Your task to perform on an android device: check android version Image 0: 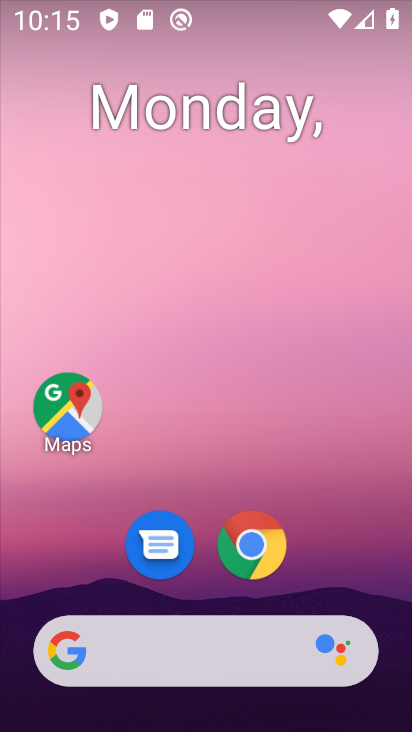
Step 0: drag from (356, 567) to (302, 169)
Your task to perform on an android device: check android version Image 1: 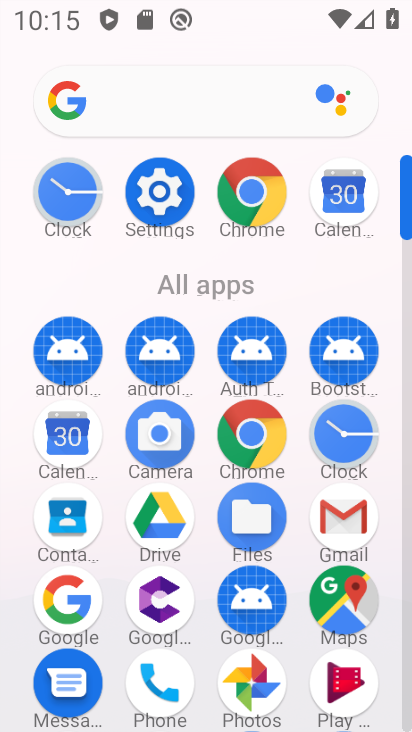
Step 1: drag from (229, 628) to (223, 296)
Your task to perform on an android device: check android version Image 2: 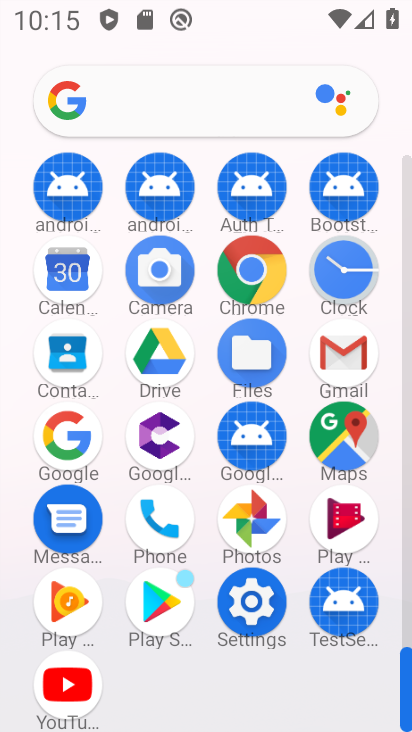
Step 2: click (250, 607)
Your task to perform on an android device: check android version Image 3: 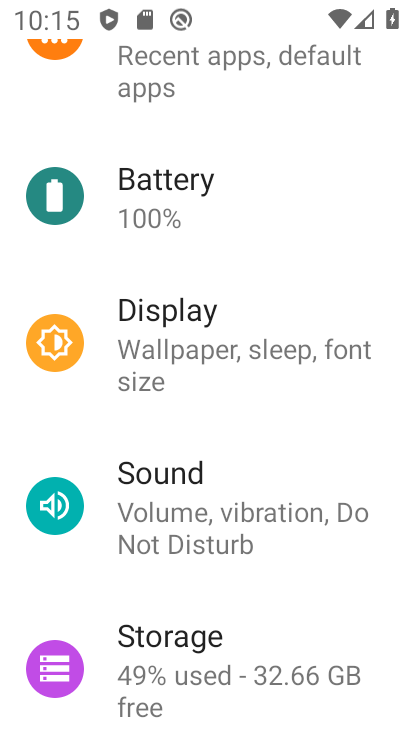
Step 3: drag from (281, 255) to (282, 592)
Your task to perform on an android device: check android version Image 4: 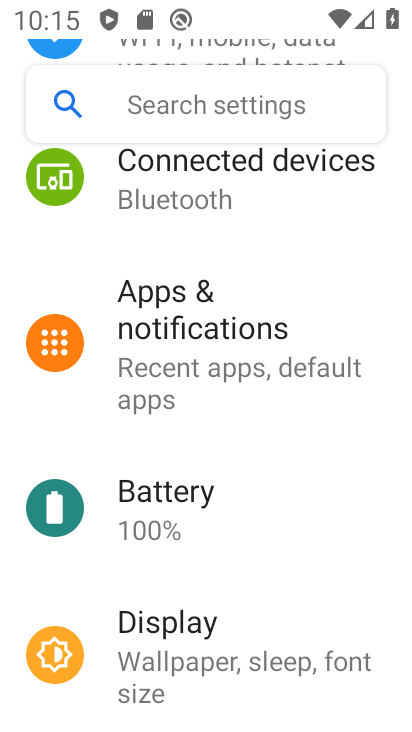
Step 4: drag from (336, 314) to (301, 675)
Your task to perform on an android device: check android version Image 5: 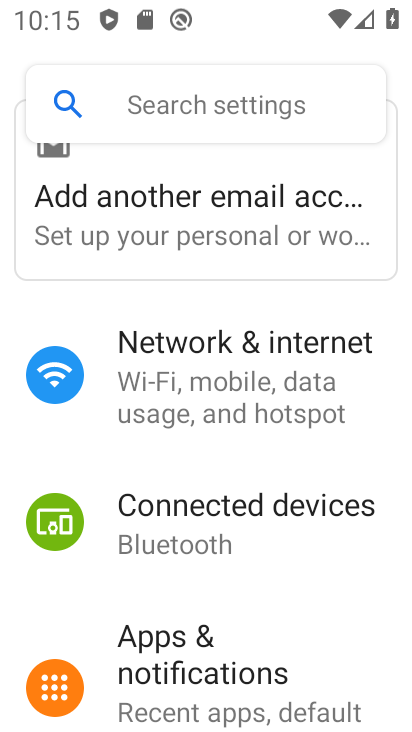
Step 5: drag from (293, 651) to (293, 166)
Your task to perform on an android device: check android version Image 6: 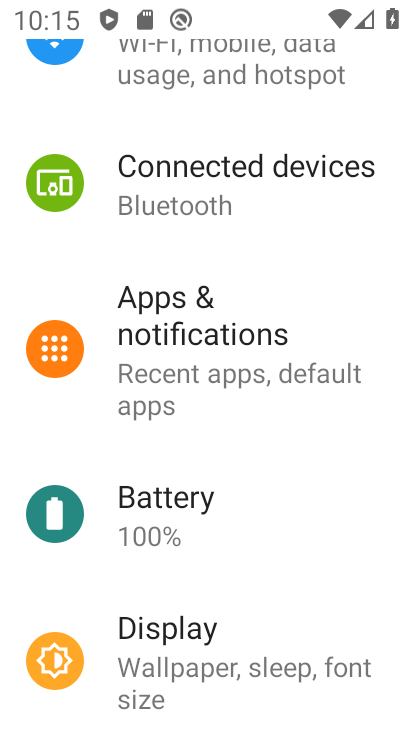
Step 6: drag from (346, 628) to (294, 234)
Your task to perform on an android device: check android version Image 7: 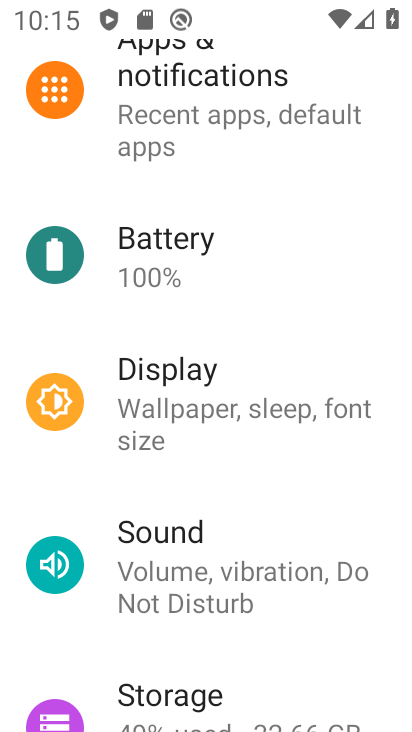
Step 7: drag from (298, 619) to (299, 288)
Your task to perform on an android device: check android version Image 8: 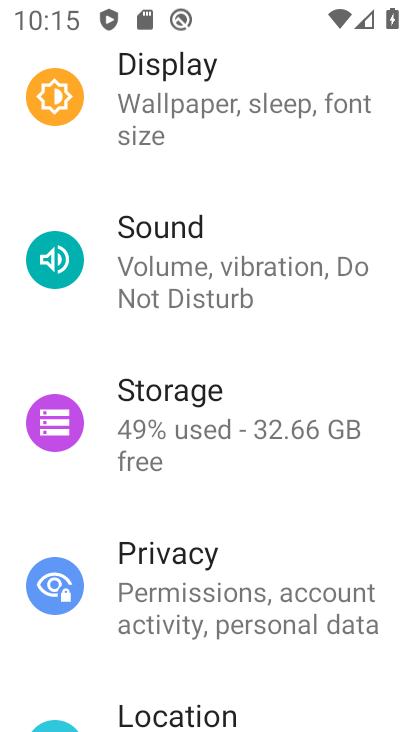
Step 8: drag from (313, 668) to (289, 266)
Your task to perform on an android device: check android version Image 9: 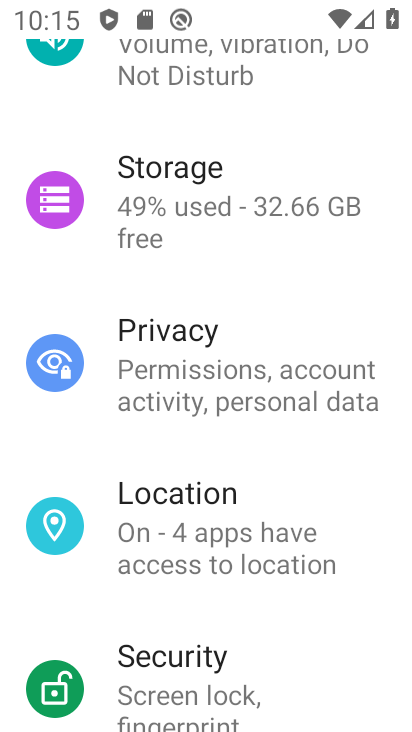
Step 9: drag from (263, 673) to (248, 229)
Your task to perform on an android device: check android version Image 10: 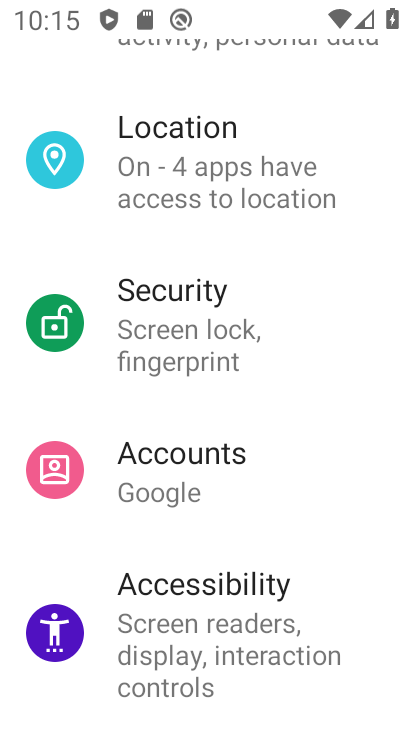
Step 10: drag from (286, 659) to (300, 278)
Your task to perform on an android device: check android version Image 11: 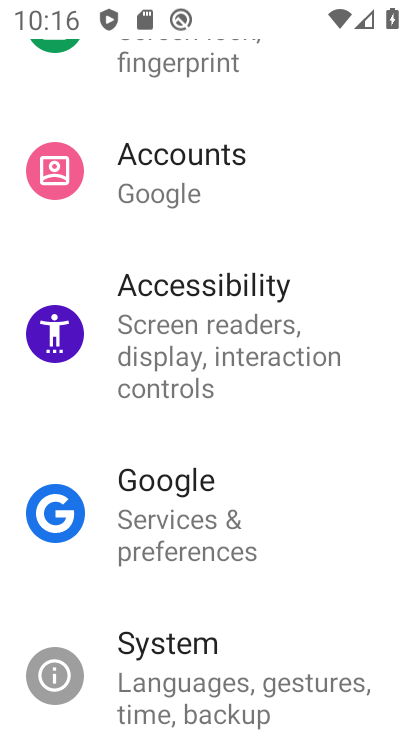
Step 11: drag from (337, 716) to (322, 249)
Your task to perform on an android device: check android version Image 12: 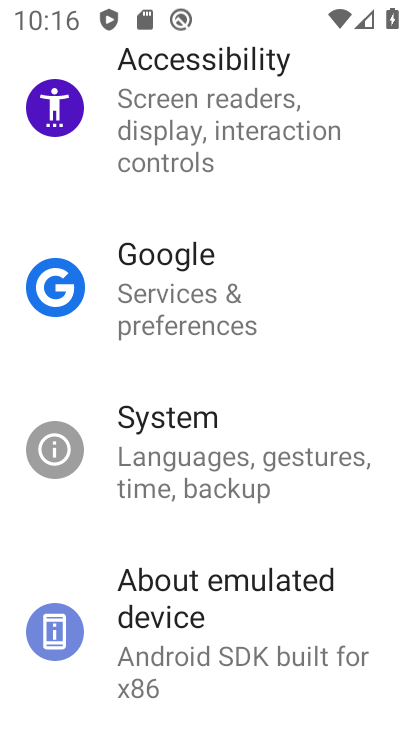
Step 12: click (274, 579)
Your task to perform on an android device: check android version Image 13: 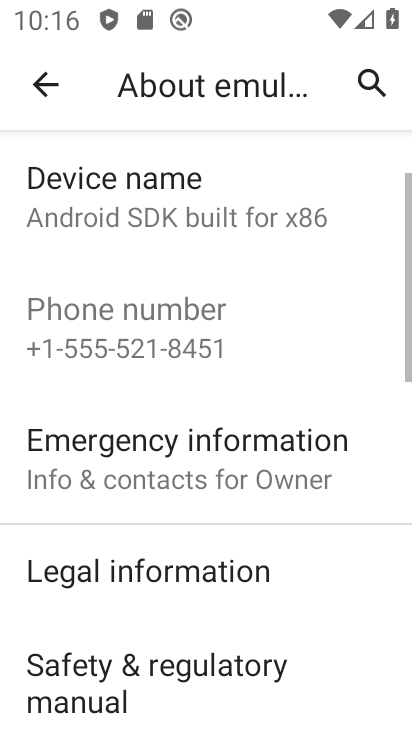
Step 13: drag from (217, 554) to (214, 231)
Your task to perform on an android device: check android version Image 14: 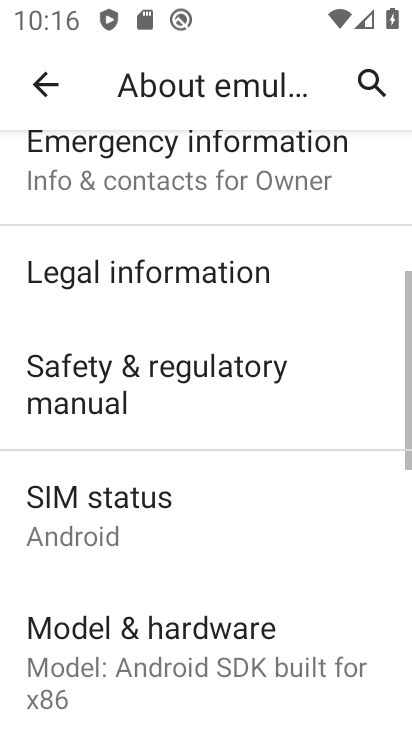
Step 14: drag from (199, 647) to (213, 301)
Your task to perform on an android device: check android version Image 15: 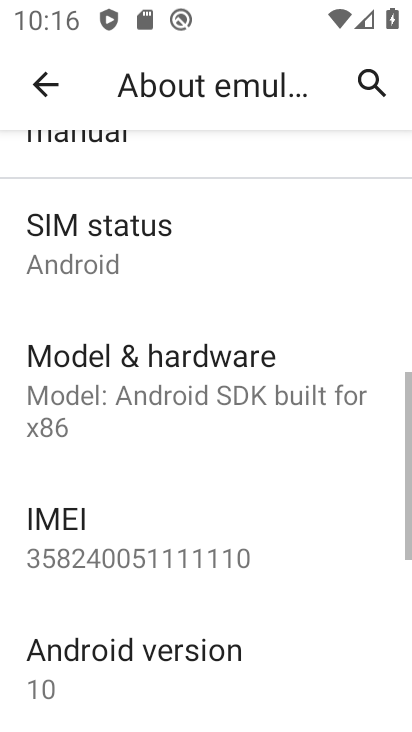
Step 15: click (192, 639)
Your task to perform on an android device: check android version Image 16: 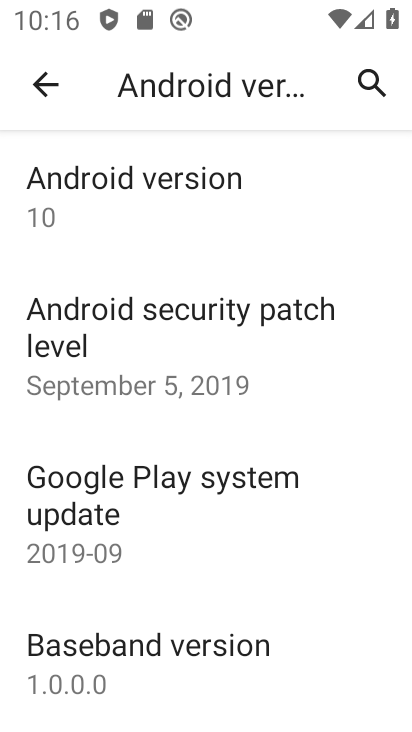
Step 16: task complete